Your task to perform on an android device: Go to sound settings Image 0: 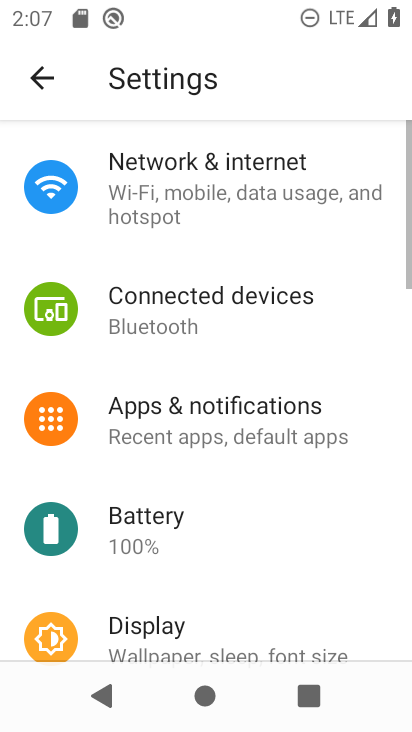
Step 0: press home button
Your task to perform on an android device: Go to sound settings Image 1: 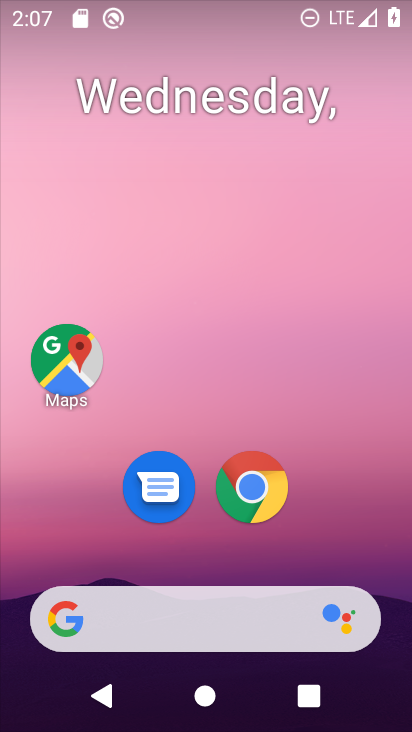
Step 1: drag from (401, 616) to (256, 64)
Your task to perform on an android device: Go to sound settings Image 2: 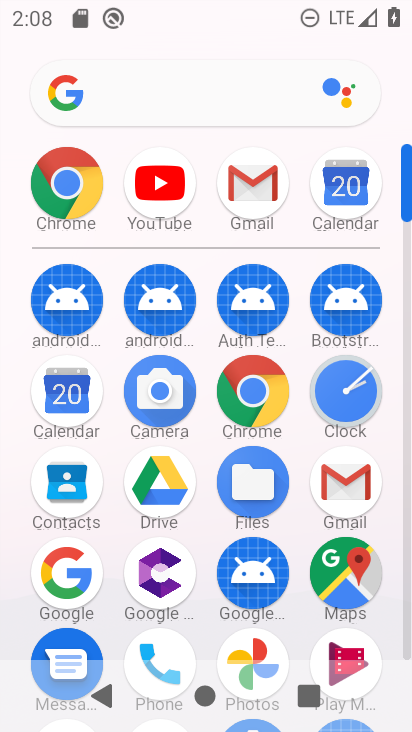
Step 2: click (408, 653)
Your task to perform on an android device: Go to sound settings Image 3: 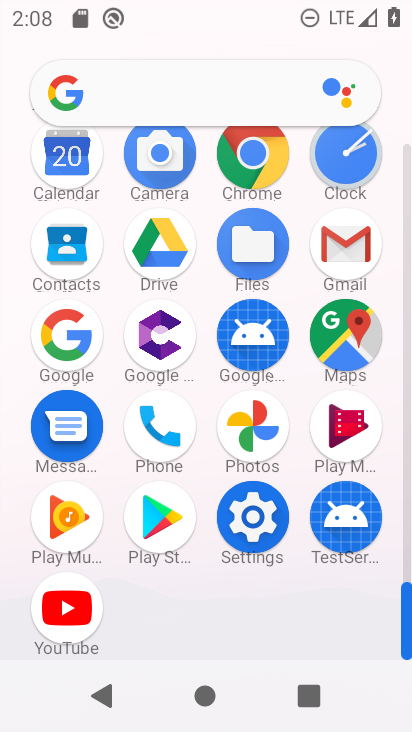
Step 3: click (251, 512)
Your task to perform on an android device: Go to sound settings Image 4: 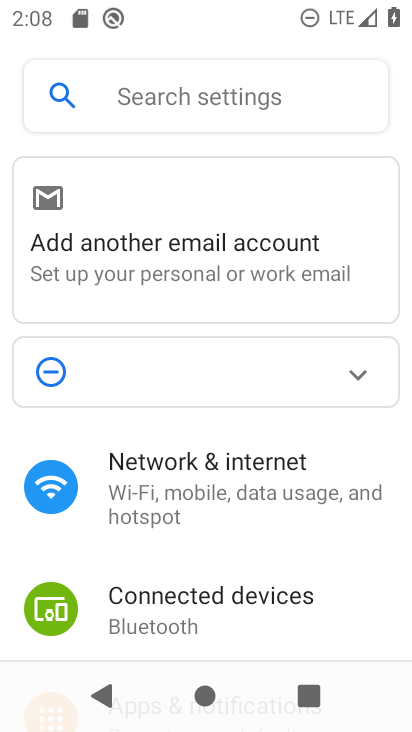
Step 4: drag from (197, 550) to (302, 105)
Your task to perform on an android device: Go to sound settings Image 5: 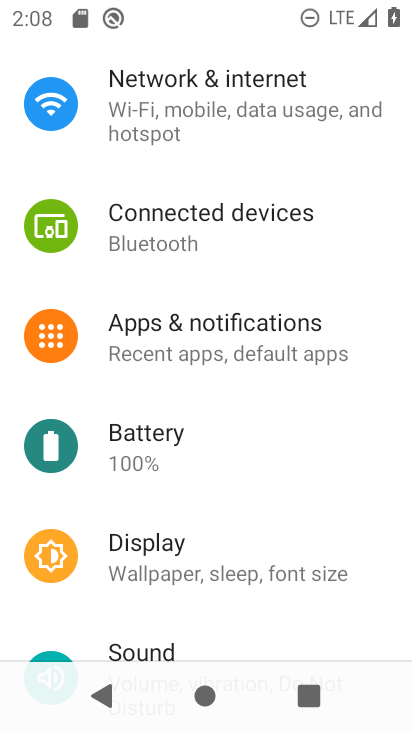
Step 5: drag from (90, 566) to (185, 208)
Your task to perform on an android device: Go to sound settings Image 6: 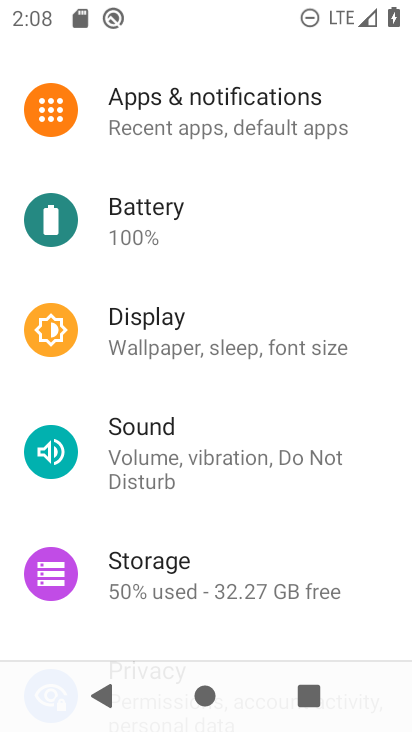
Step 6: click (187, 465)
Your task to perform on an android device: Go to sound settings Image 7: 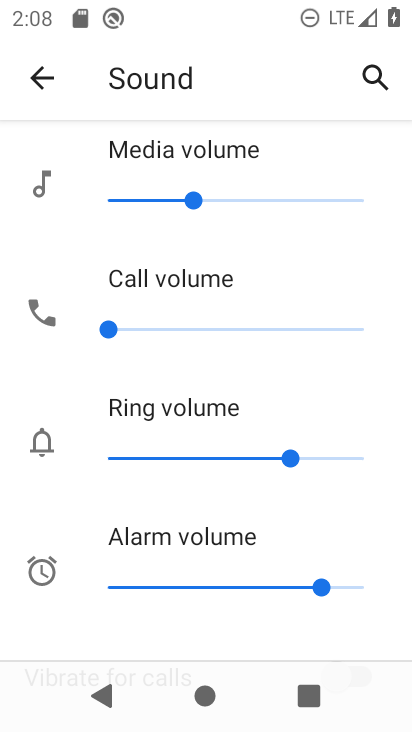
Step 7: task complete